Your task to perform on an android device: refresh tabs in the chrome app Image 0: 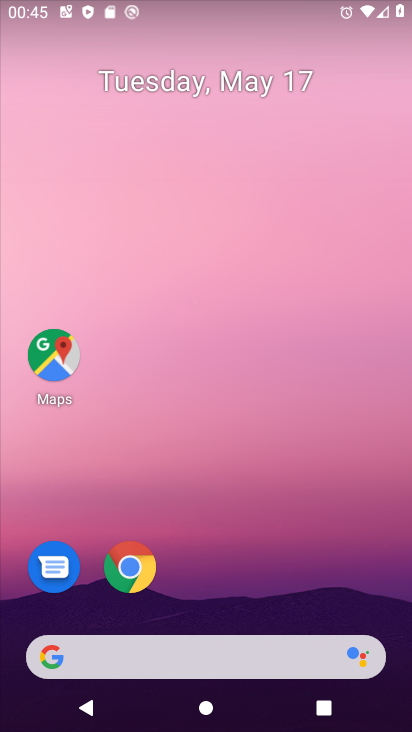
Step 0: click (124, 569)
Your task to perform on an android device: refresh tabs in the chrome app Image 1: 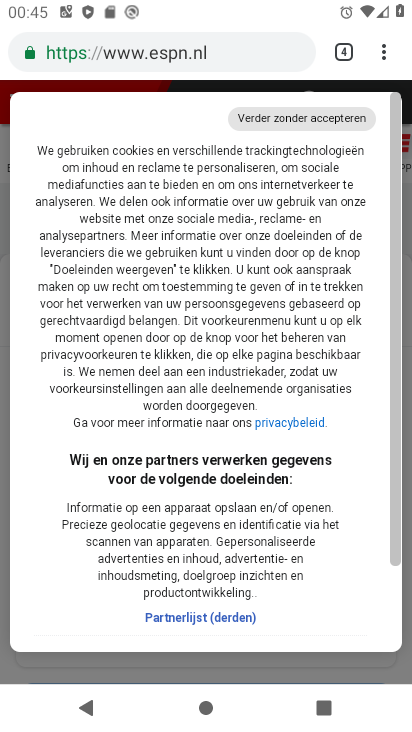
Step 1: click (379, 43)
Your task to perform on an android device: refresh tabs in the chrome app Image 2: 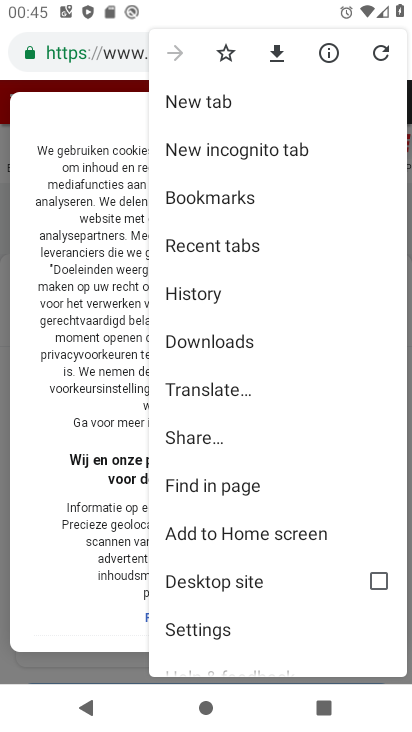
Step 2: click (374, 56)
Your task to perform on an android device: refresh tabs in the chrome app Image 3: 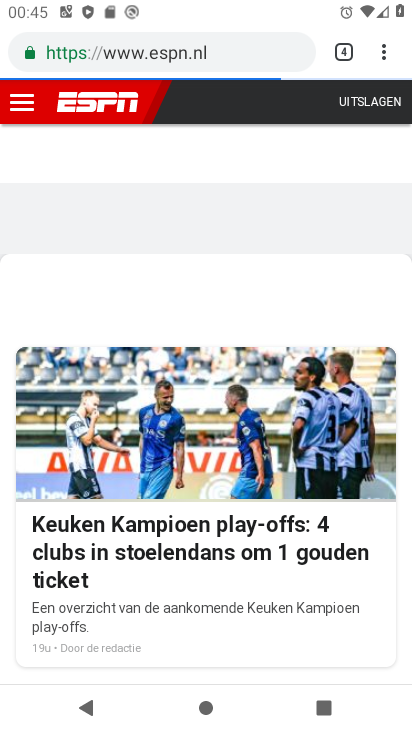
Step 3: task complete